Your task to perform on an android device: toggle data saver in the chrome app Image 0: 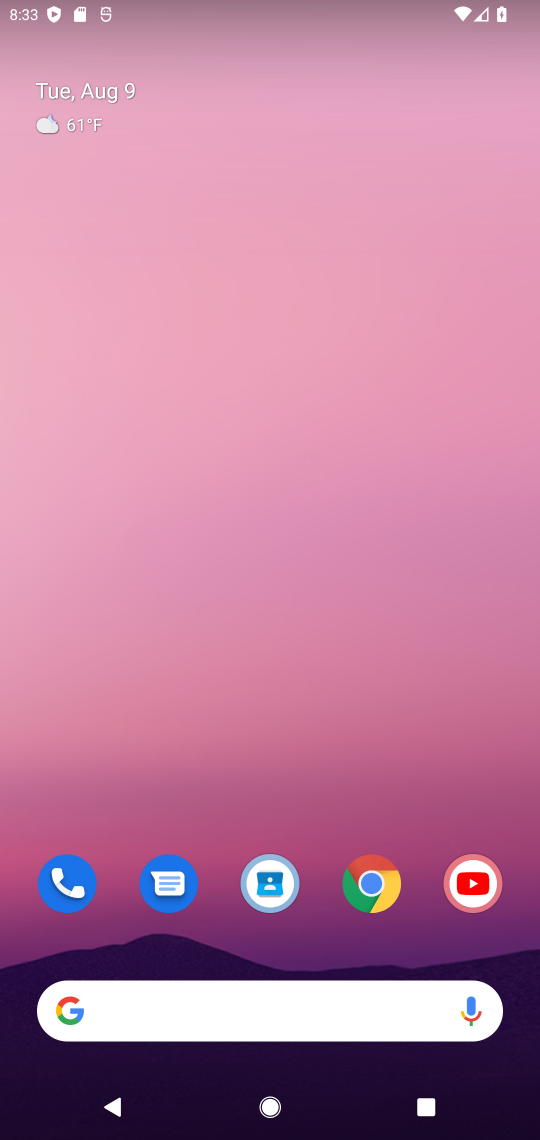
Step 0: drag from (397, 762) to (312, 24)
Your task to perform on an android device: toggle data saver in the chrome app Image 1: 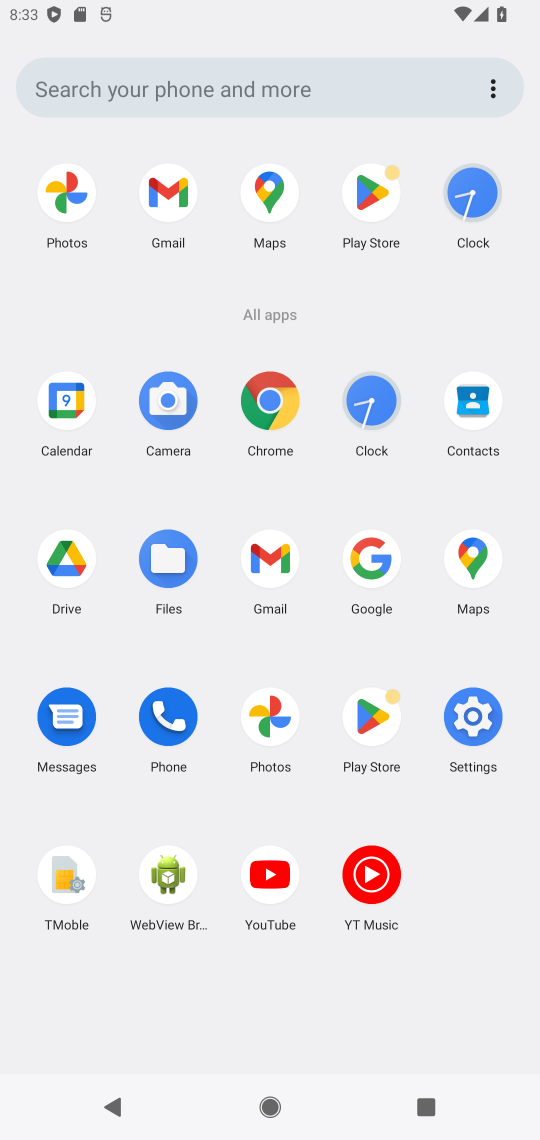
Step 1: click (284, 398)
Your task to perform on an android device: toggle data saver in the chrome app Image 2: 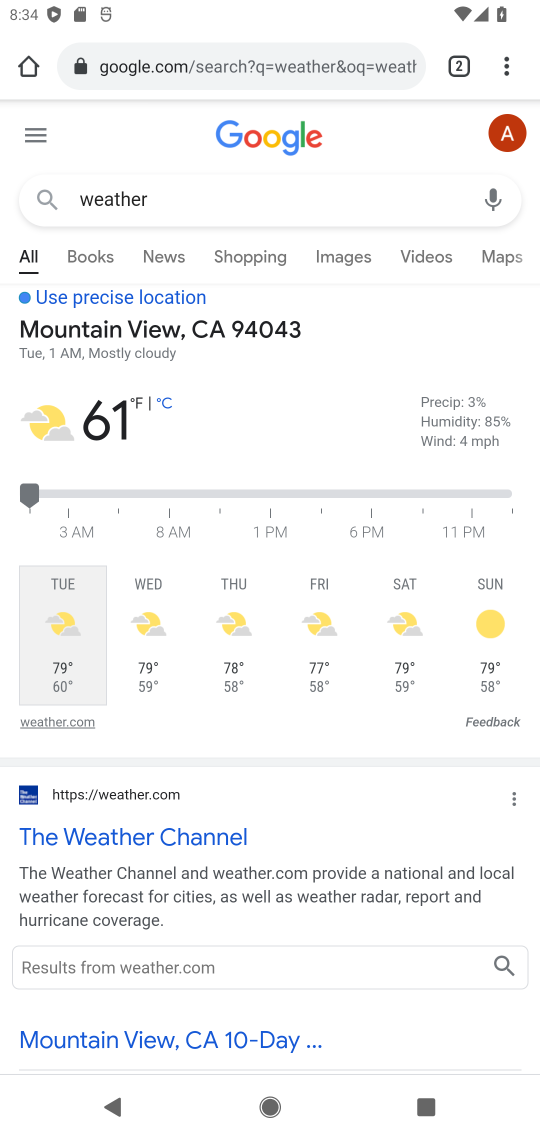
Step 2: click (511, 65)
Your task to perform on an android device: toggle data saver in the chrome app Image 3: 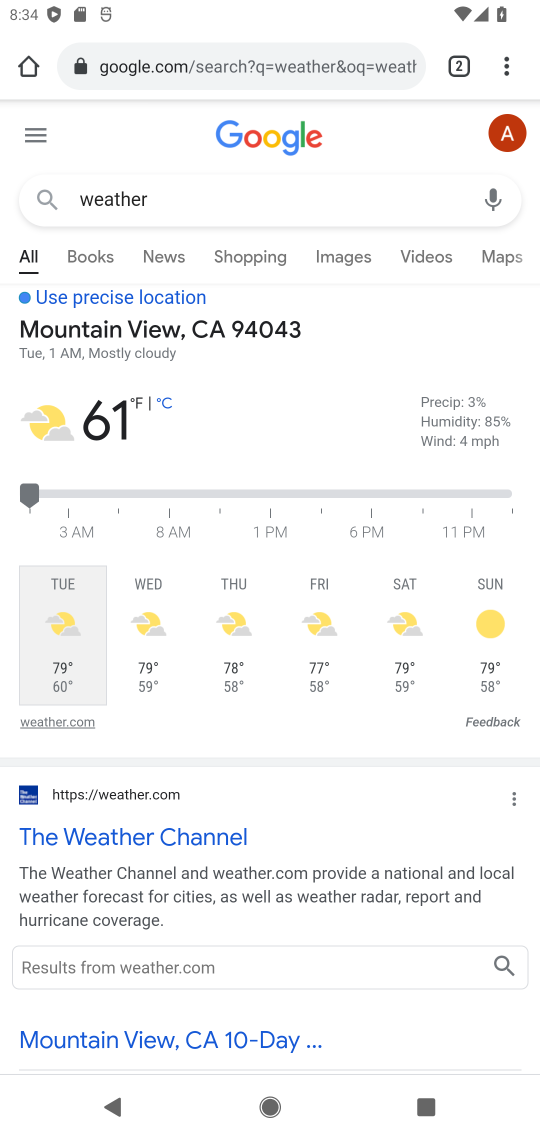
Step 3: drag from (509, 45) to (334, 874)
Your task to perform on an android device: toggle data saver in the chrome app Image 4: 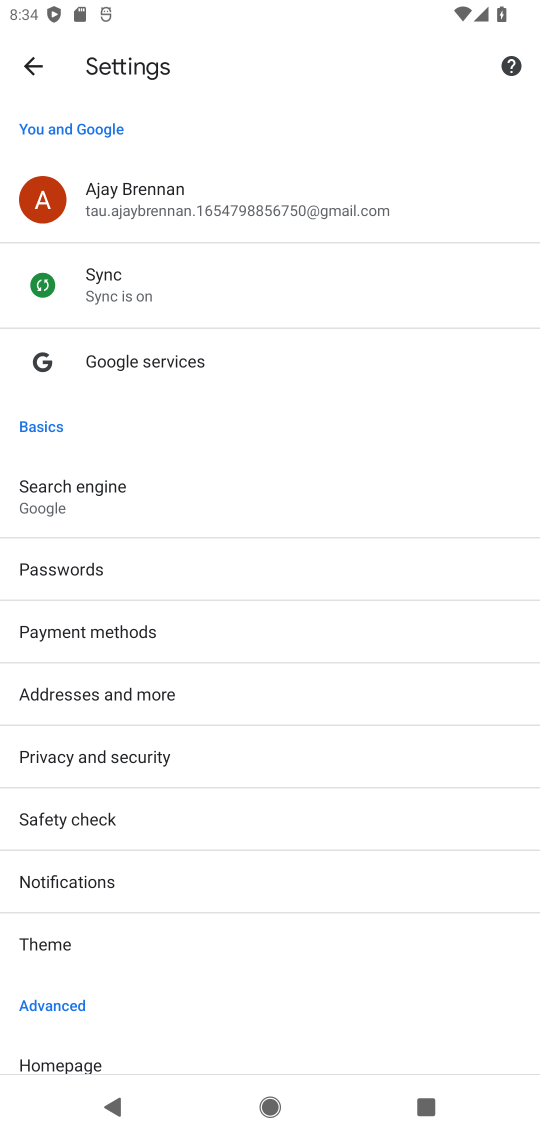
Step 4: drag from (248, 919) to (310, 227)
Your task to perform on an android device: toggle data saver in the chrome app Image 5: 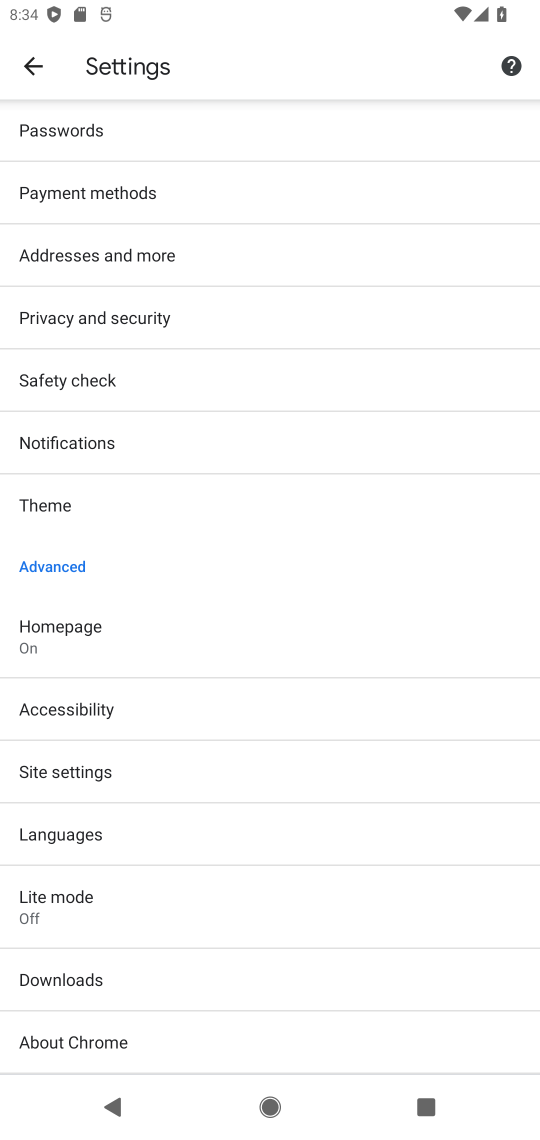
Step 5: click (103, 896)
Your task to perform on an android device: toggle data saver in the chrome app Image 6: 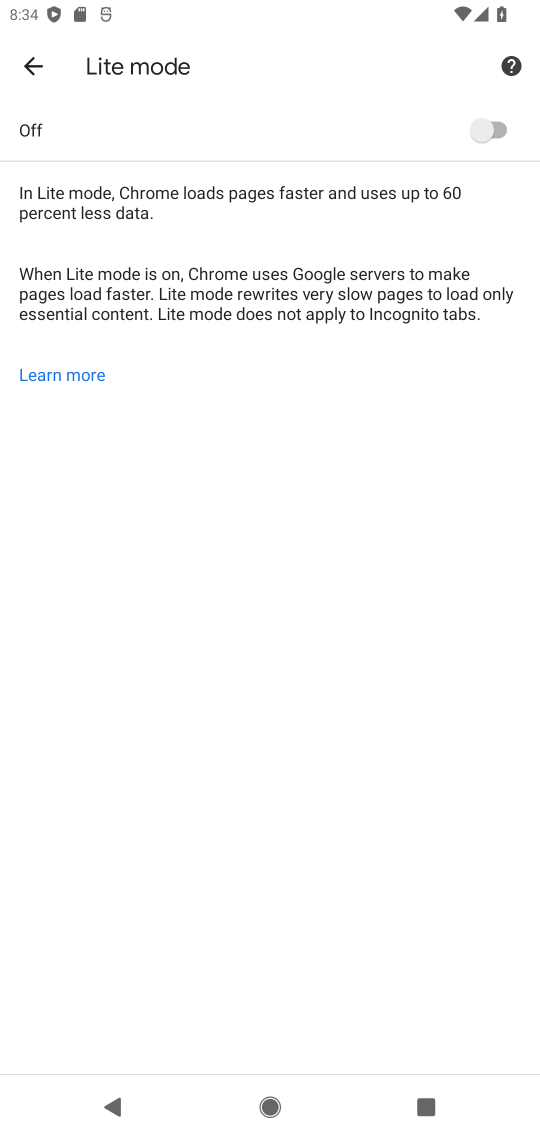
Step 6: click (493, 131)
Your task to perform on an android device: toggle data saver in the chrome app Image 7: 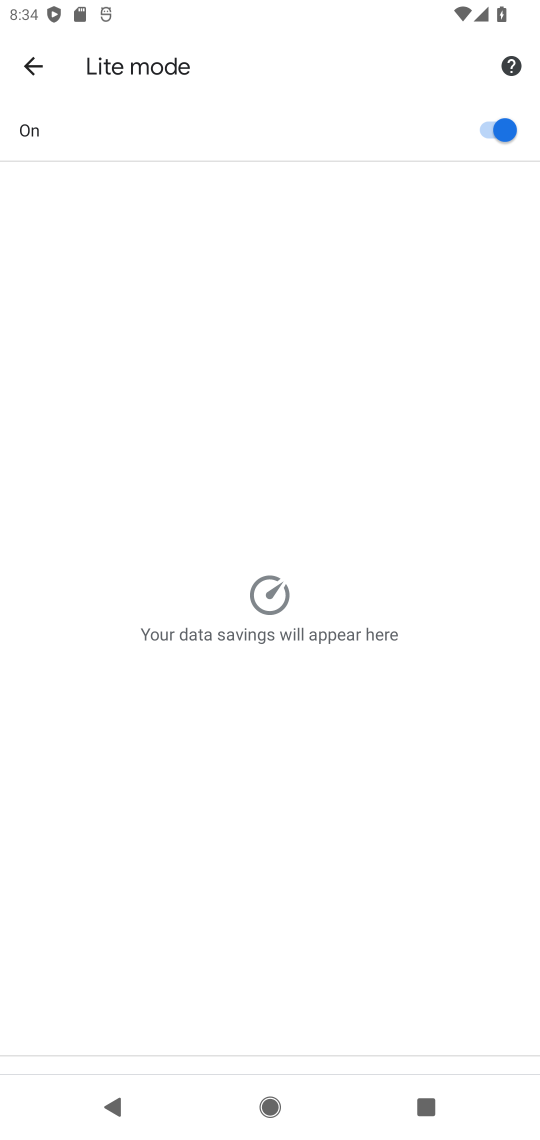
Step 7: task complete